Your task to perform on an android device: Go to CNN.com Image 0: 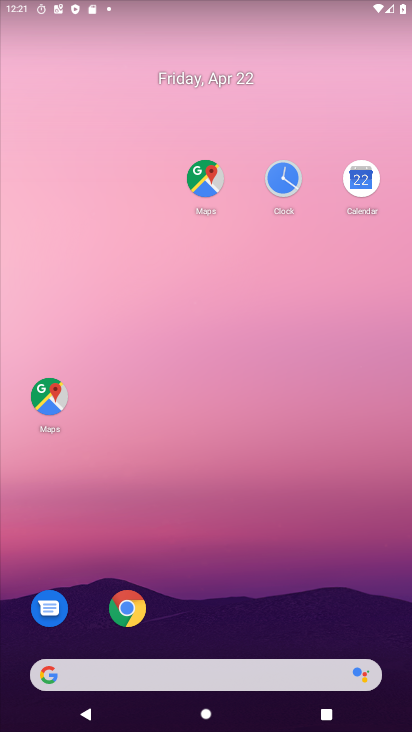
Step 0: drag from (259, 638) to (297, 100)
Your task to perform on an android device: Go to CNN.com Image 1: 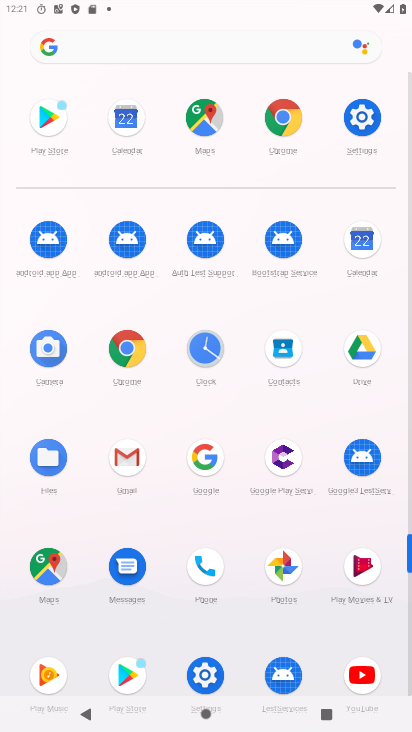
Step 1: click (278, 115)
Your task to perform on an android device: Go to CNN.com Image 2: 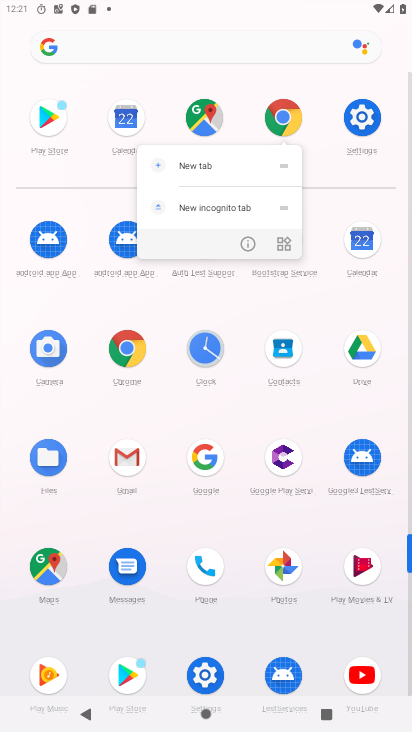
Step 2: click (278, 115)
Your task to perform on an android device: Go to CNN.com Image 3: 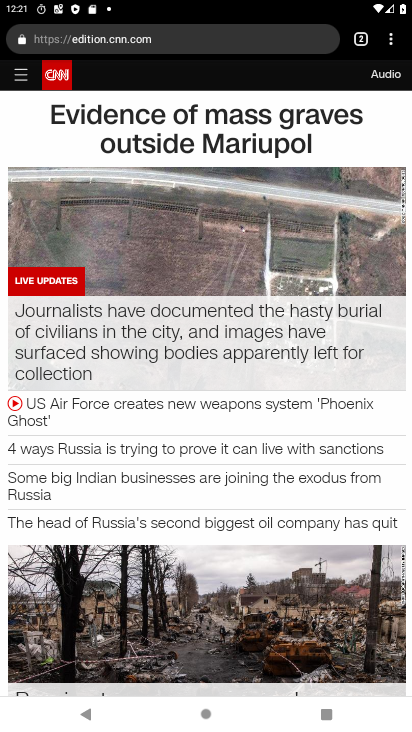
Step 3: click (390, 48)
Your task to perform on an android device: Go to CNN.com Image 4: 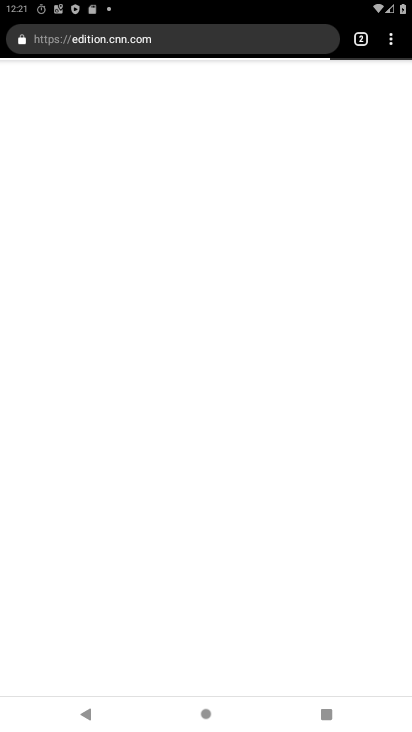
Step 4: click (390, 48)
Your task to perform on an android device: Go to CNN.com Image 5: 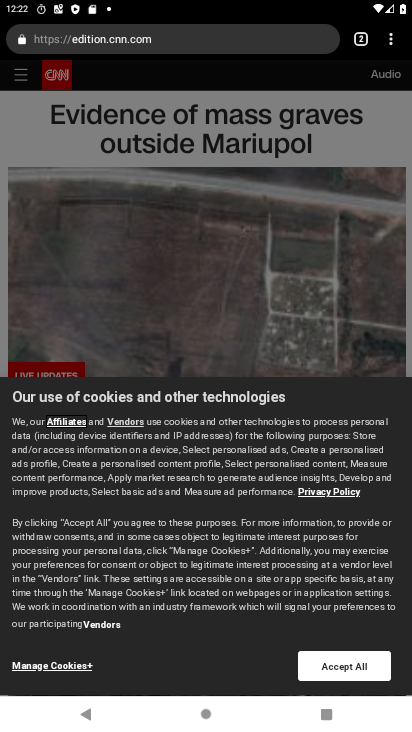
Step 5: type "www. CNN.com"
Your task to perform on an android device: Go to CNN.com Image 6: 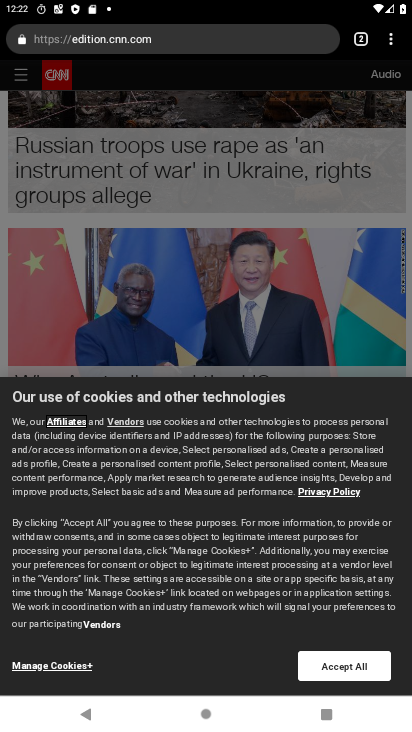
Step 6: task complete